Your task to perform on an android device: turn off sleep mode Image 0: 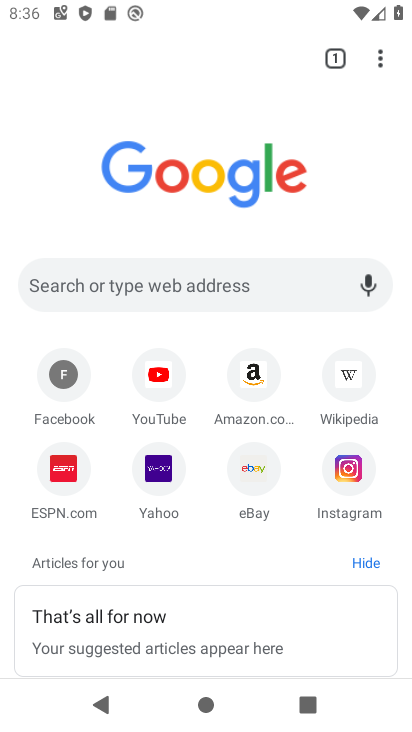
Step 0: press home button
Your task to perform on an android device: turn off sleep mode Image 1: 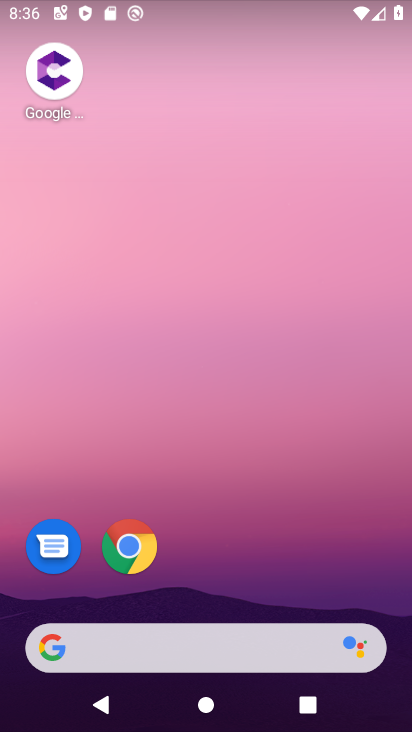
Step 1: drag from (384, 602) to (300, 107)
Your task to perform on an android device: turn off sleep mode Image 2: 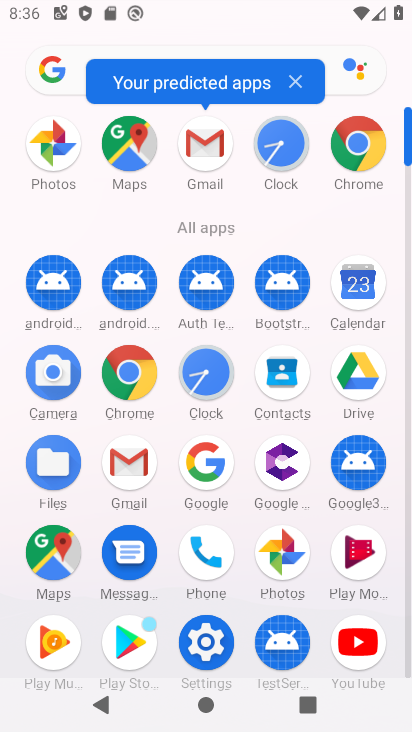
Step 2: click (204, 645)
Your task to perform on an android device: turn off sleep mode Image 3: 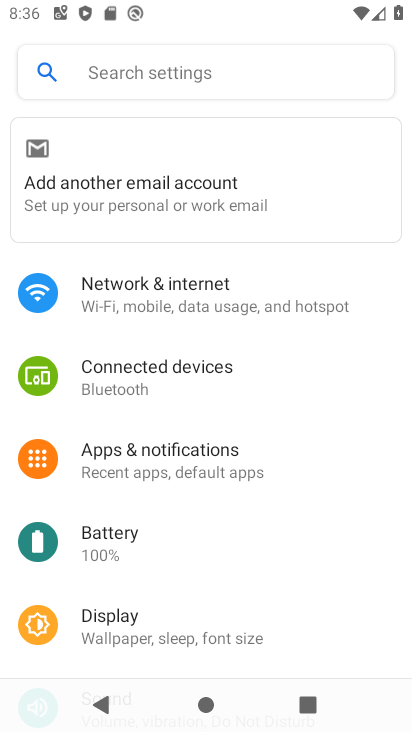
Step 3: drag from (309, 627) to (345, 357)
Your task to perform on an android device: turn off sleep mode Image 4: 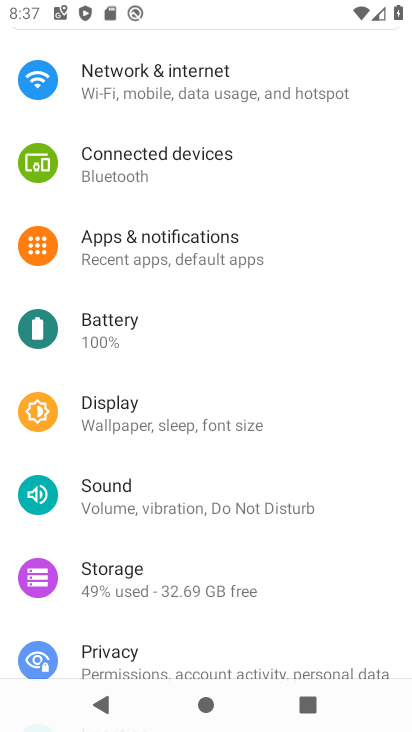
Step 4: click (117, 412)
Your task to perform on an android device: turn off sleep mode Image 5: 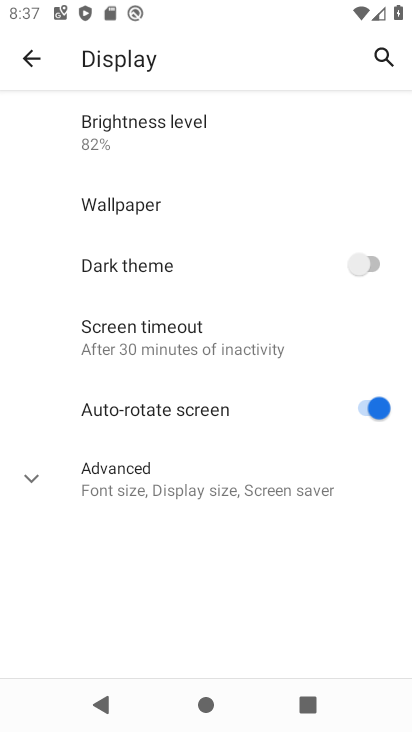
Step 5: click (31, 474)
Your task to perform on an android device: turn off sleep mode Image 6: 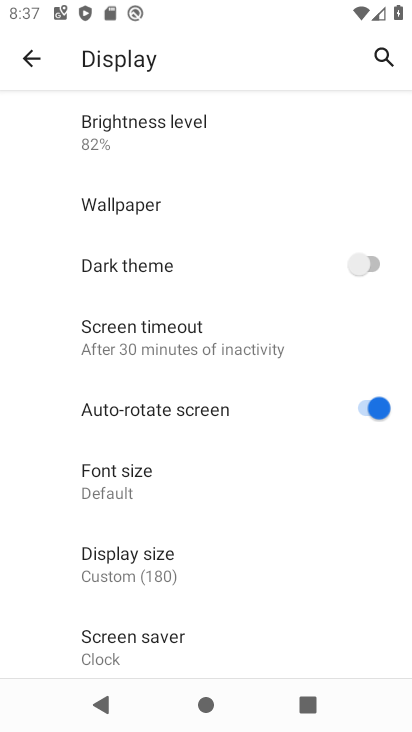
Step 6: task complete